Your task to perform on an android device: Open Chrome and go to settings Image 0: 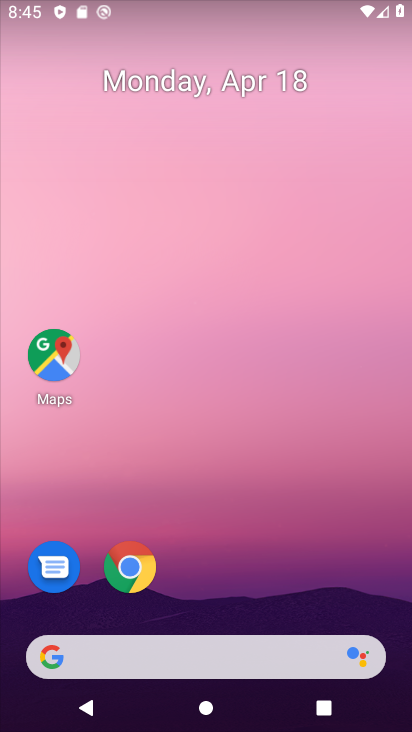
Step 0: click (137, 562)
Your task to perform on an android device: Open Chrome and go to settings Image 1: 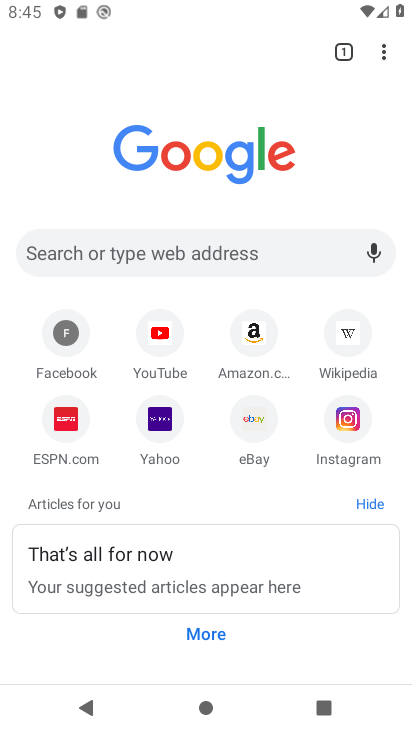
Step 1: click (390, 49)
Your task to perform on an android device: Open Chrome and go to settings Image 2: 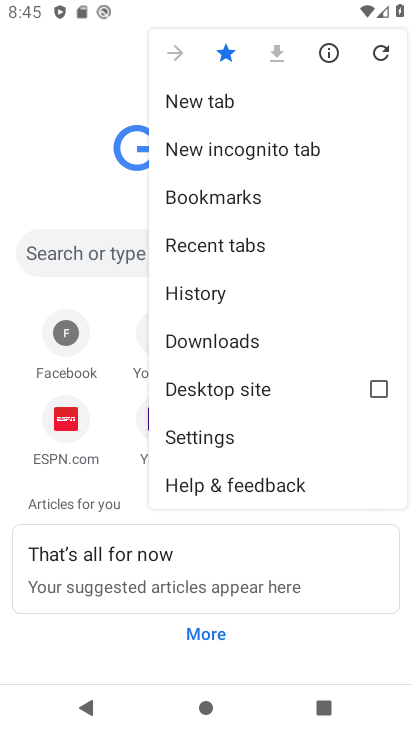
Step 2: click (225, 430)
Your task to perform on an android device: Open Chrome and go to settings Image 3: 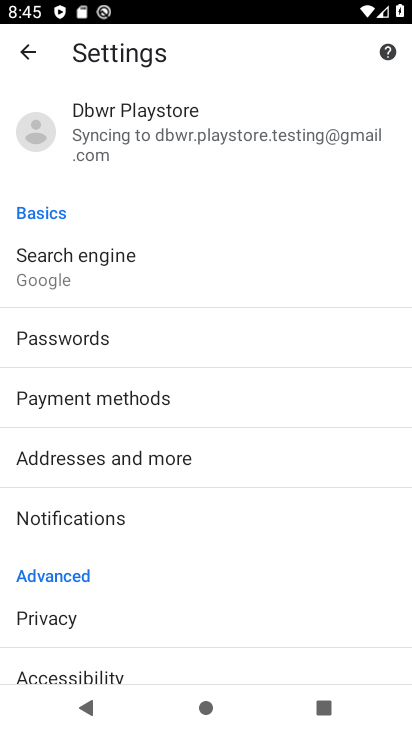
Step 3: task complete